Your task to perform on an android device: turn notification dots off Image 0: 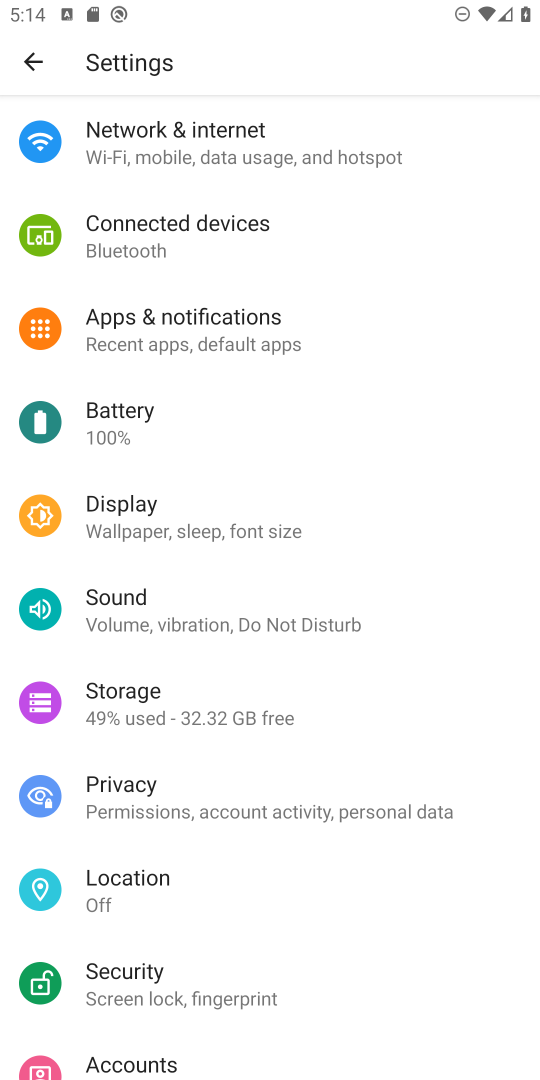
Step 0: press home button
Your task to perform on an android device: turn notification dots off Image 1: 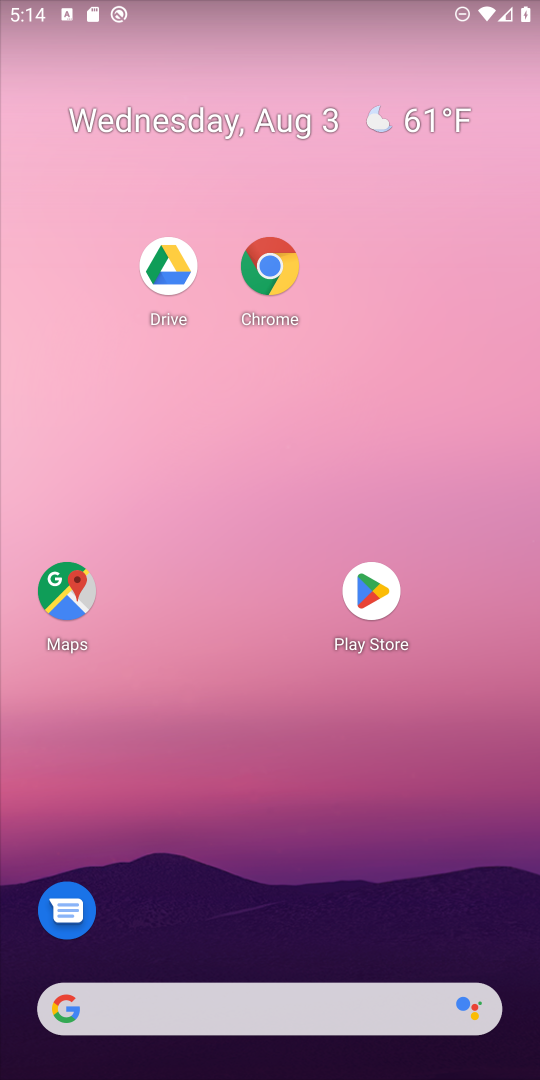
Step 1: drag from (352, 987) to (467, 20)
Your task to perform on an android device: turn notification dots off Image 2: 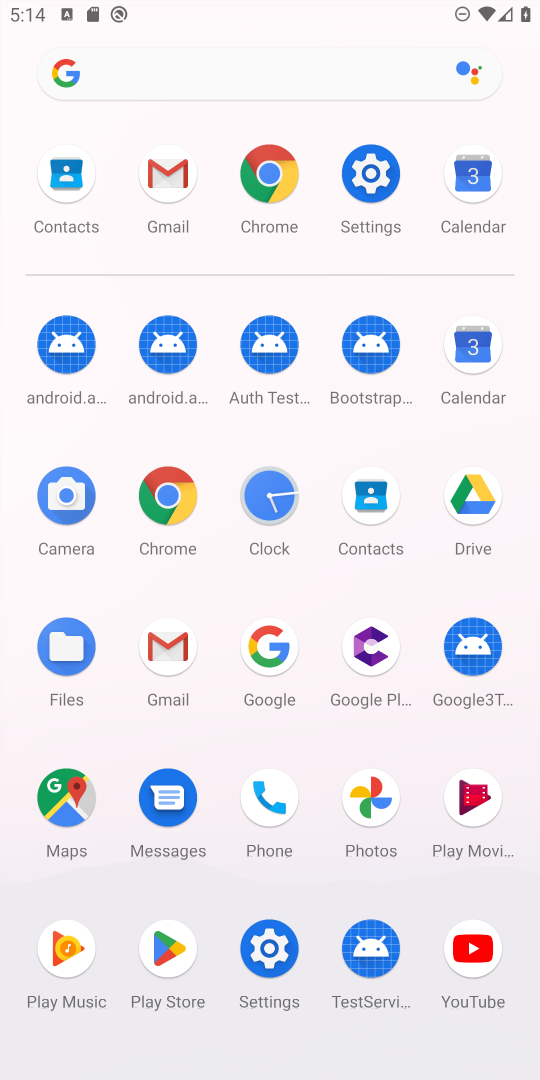
Step 2: click (391, 172)
Your task to perform on an android device: turn notification dots off Image 3: 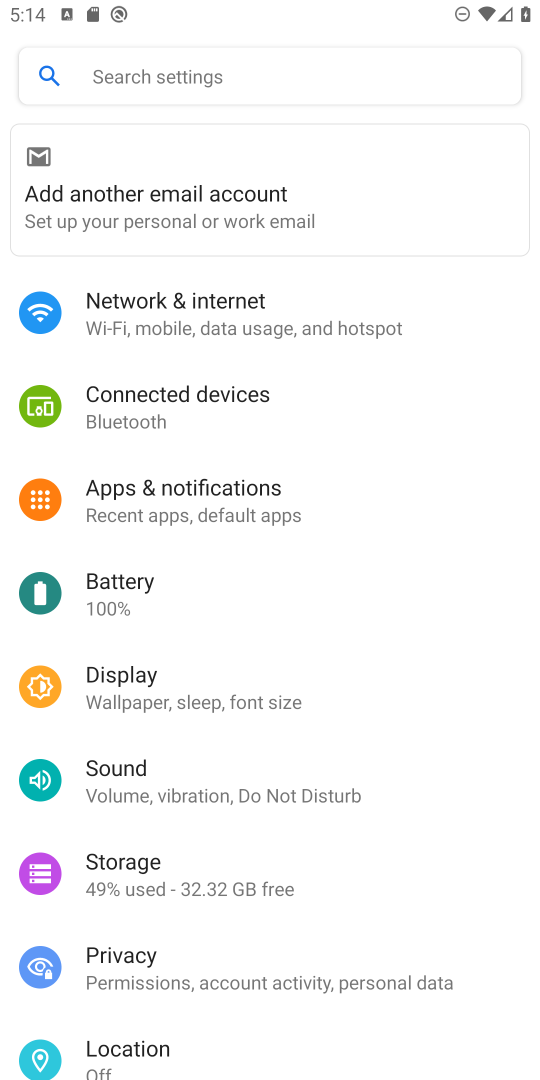
Step 3: click (293, 365)
Your task to perform on an android device: turn notification dots off Image 4: 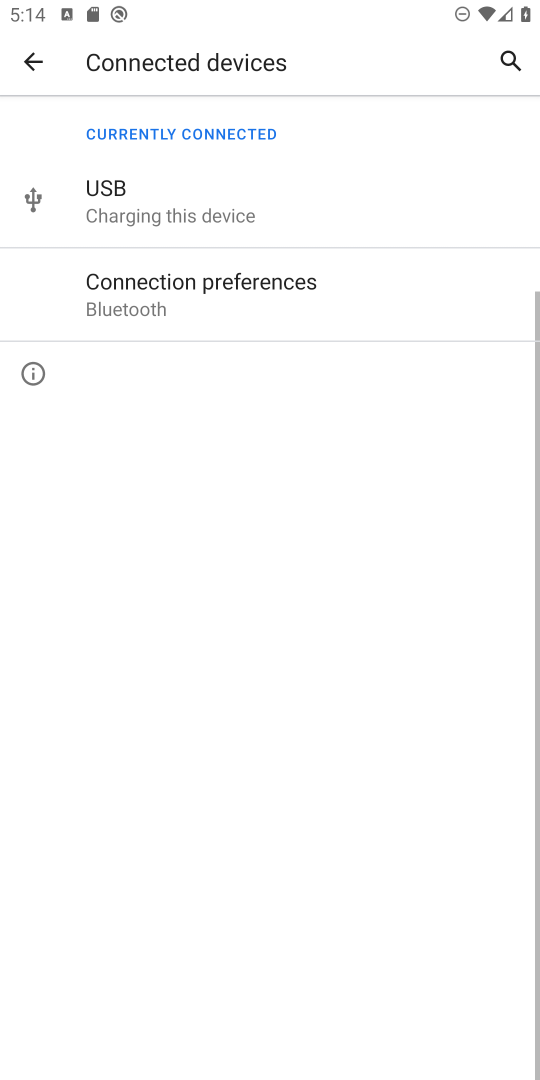
Step 4: press back button
Your task to perform on an android device: turn notification dots off Image 5: 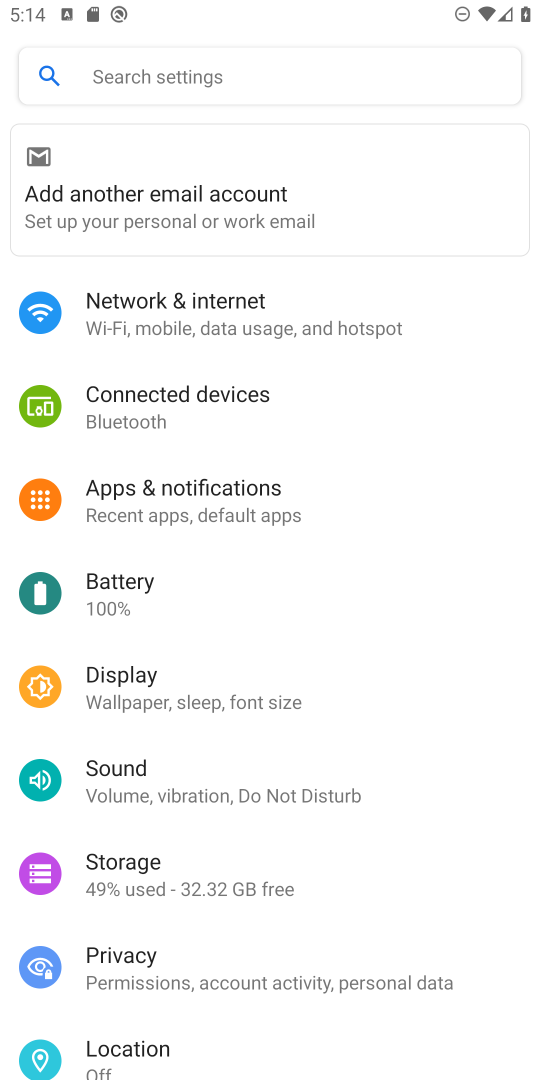
Step 5: click (274, 484)
Your task to perform on an android device: turn notification dots off Image 6: 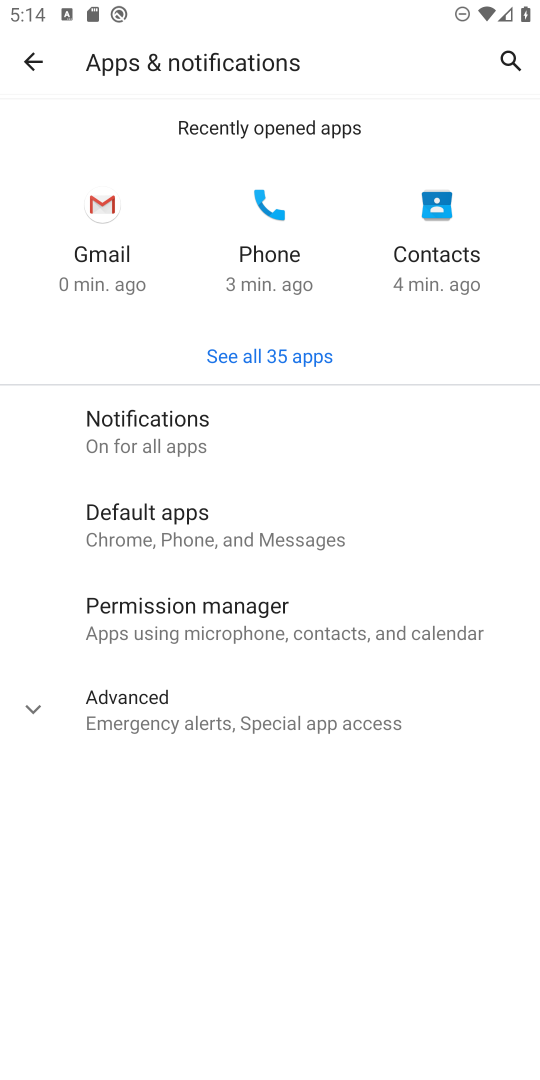
Step 6: click (169, 713)
Your task to perform on an android device: turn notification dots off Image 7: 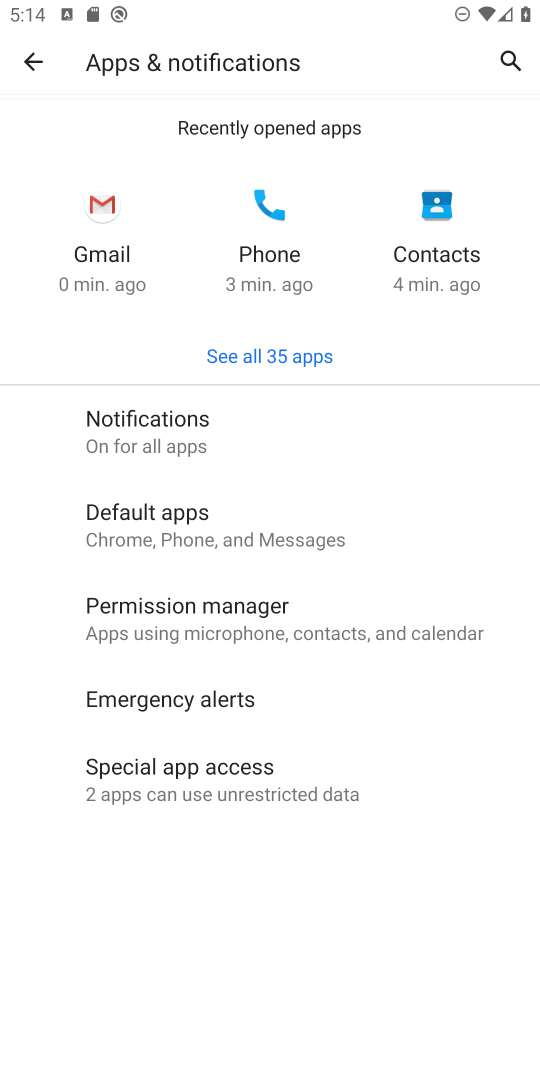
Step 7: click (237, 433)
Your task to perform on an android device: turn notification dots off Image 8: 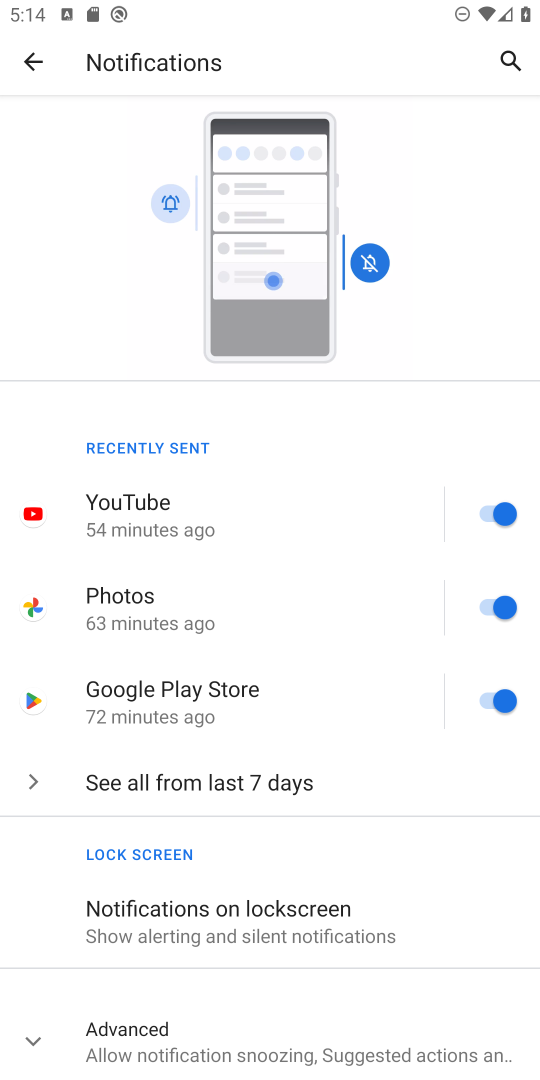
Step 8: drag from (381, 978) to (504, 271)
Your task to perform on an android device: turn notification dots off Image 9: 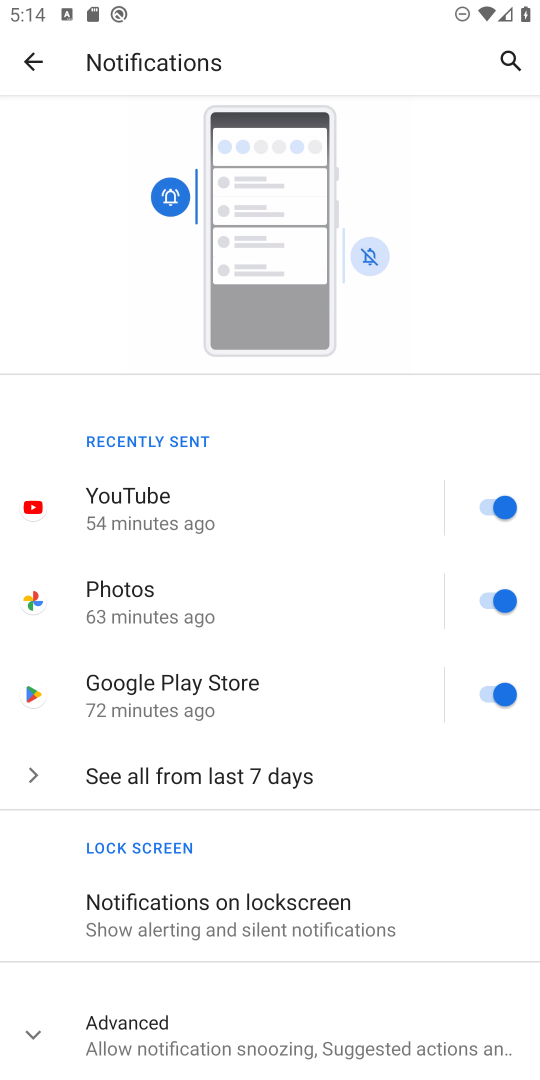
Step 9: click (312, 1041)
Your task to perform on an android device: turn notification dots off Image 10: 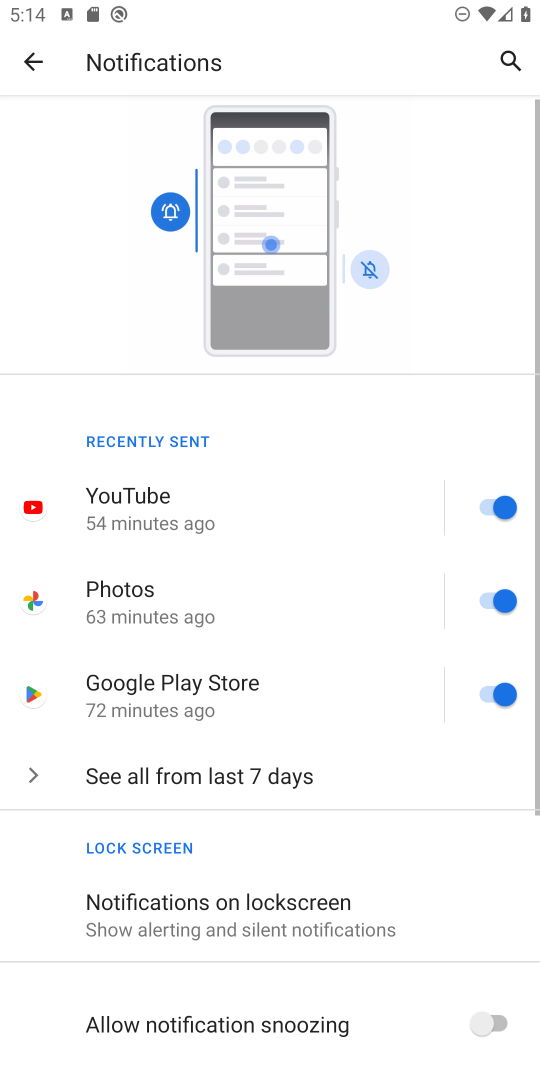
Step 10: drag from (319, 1016) to (396, 215)
Your task to perform on an android device: turn notification dots off Image 11: 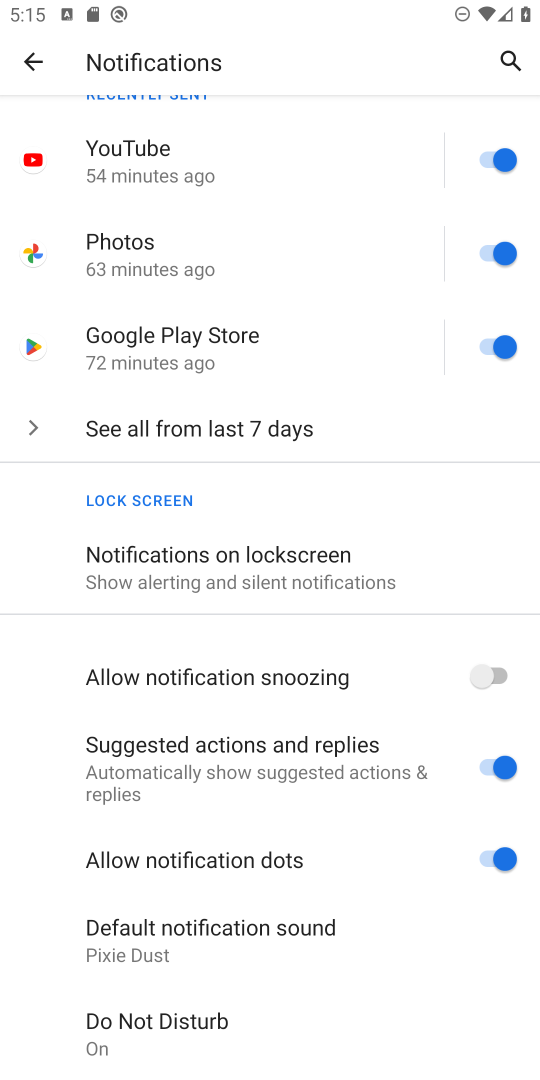
Step 11: click (499, 848)
Your task to perform on an android device: turn notification dots off Image 12: 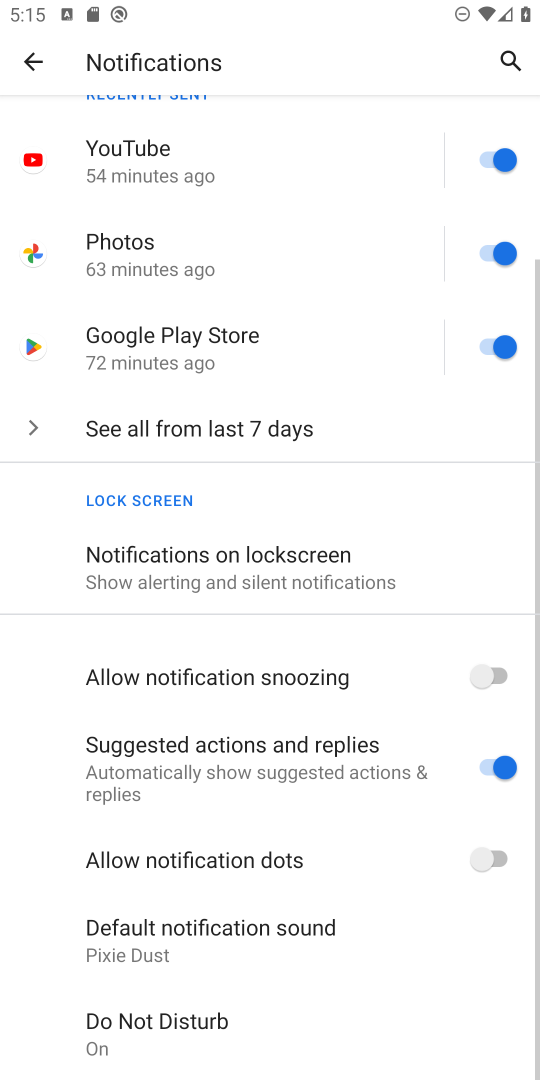
Step 12: task complete